Your task to perform on an android device: Open the web browser Image 0: 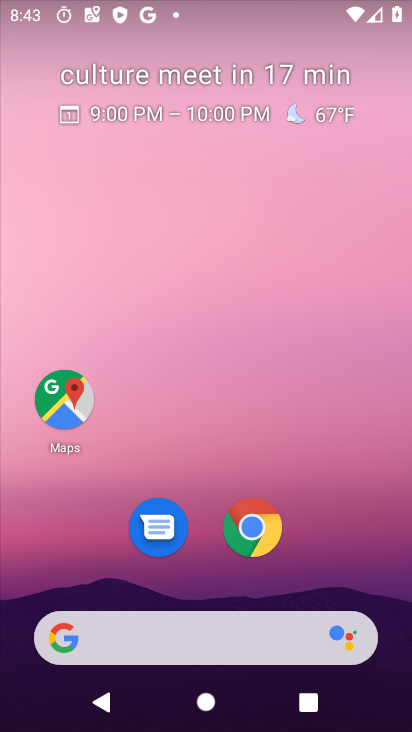
Step 0: click (252, 532)
Your task to perform on an android device: Open the web browser Image 1: 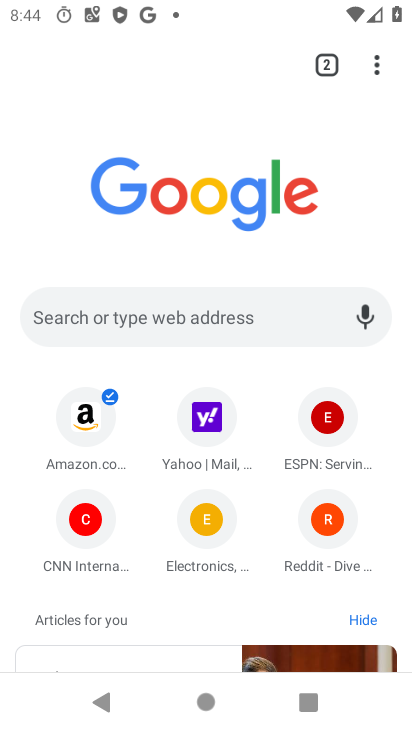
Step 1: task complete